Your task to perform on an android device: turn notification dots off Image 0: 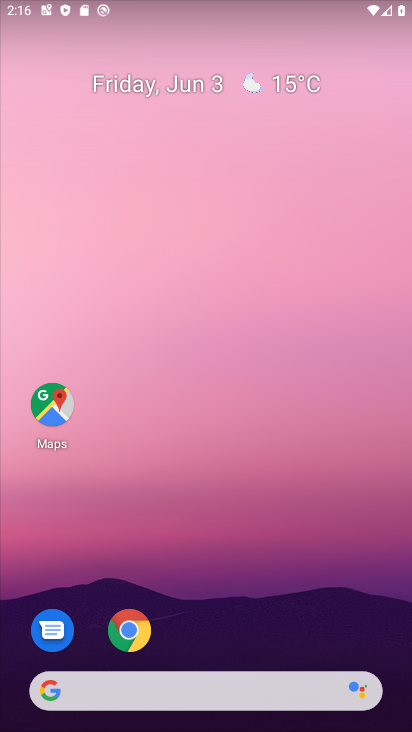
Step 0: drag from (252, 555) to (202, 31)
Your task to perform on an android device: turn notification dots off Image 1: 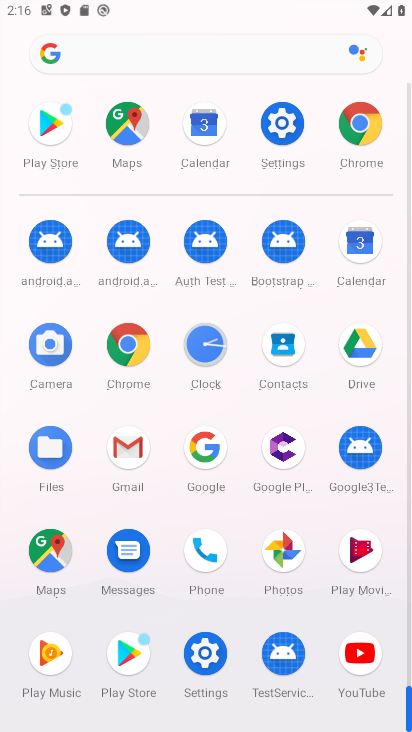
Step 1: drag from (17, 547) to (24, 206)
Your task to perform on an android device: turn notification dots off Image 2: 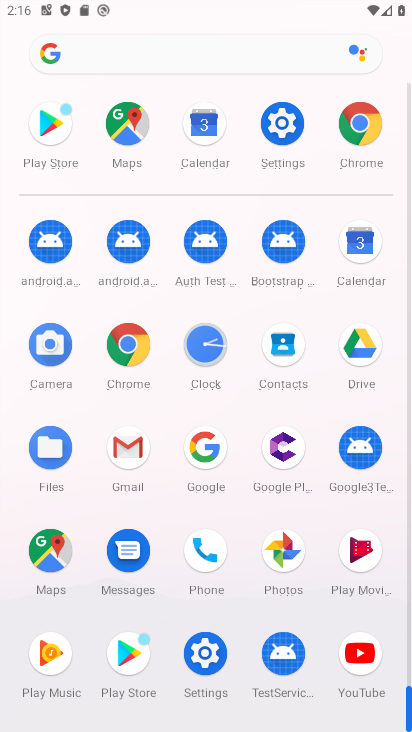
Step 2: click (206, 649)
Your task to perform on an android device: turn notification dots off Image 3: 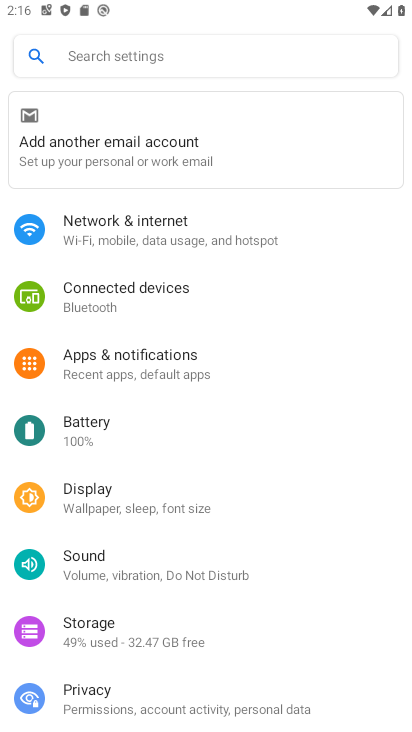
Step 3: click (161, 355)
Your task to perform on an android device: turn notification dots off Image 4: 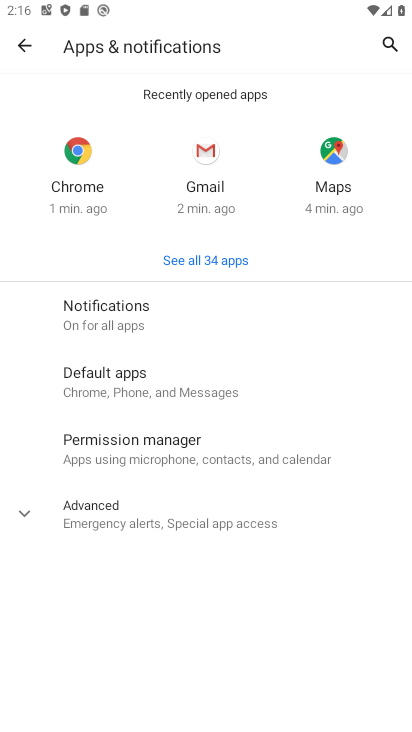
Step 4: click (27, 513)
Your task to perform on an android device: turn notification dots off Image 5: 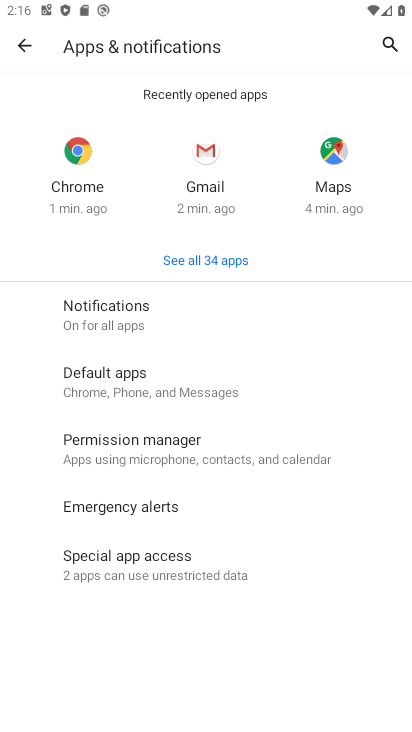
Step 5: click (153, 318)
Your task to perform on an android device: turn notification dots off Image 6: 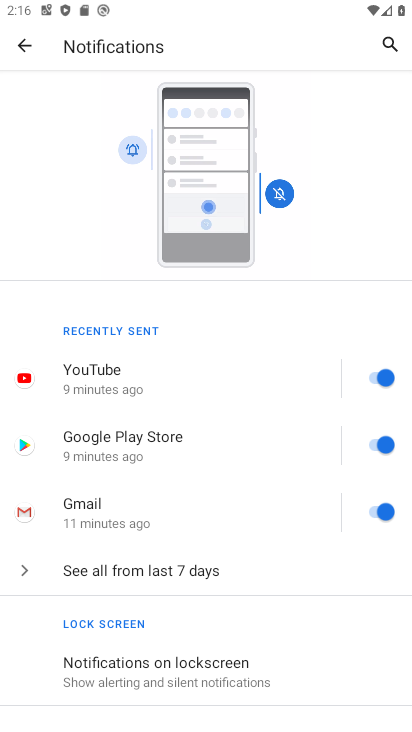
Step 6: drag from (233, 590) to (227, 221)
Your task to perform on an android device: turn notification dots off Image 7: 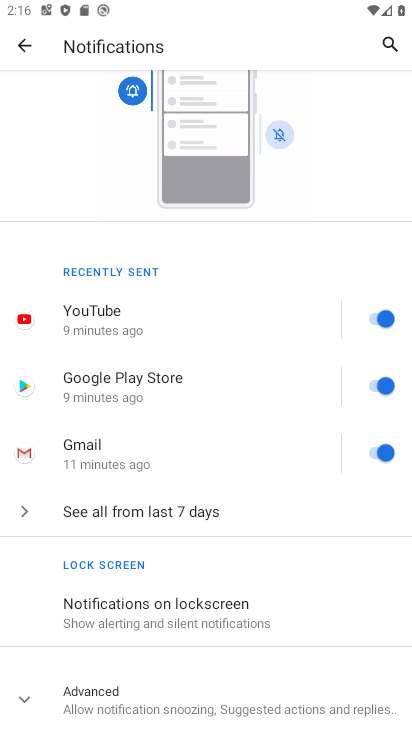
Step 7: drag from (209, 619) to (205, 435)
Your task to perform on an android device: turn notification dots off Image 8: 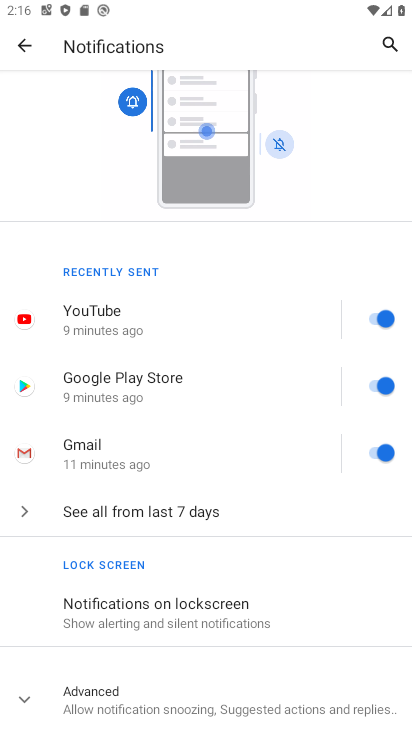
Step 8: click (58, 697)
Your task to perform on an android device: turn notification dots off Image 9: 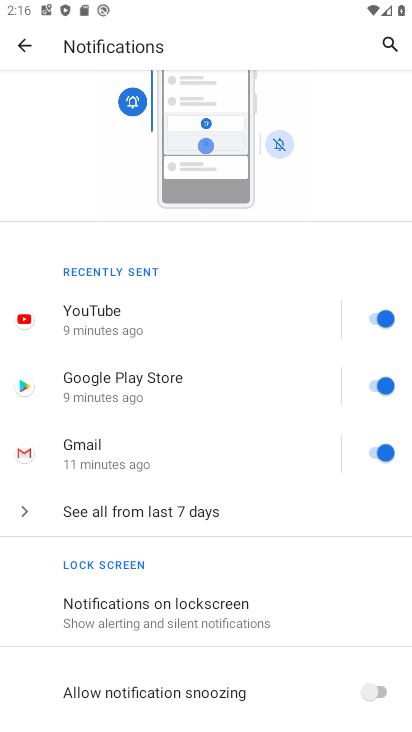
Step 9: drag from (226, 584) to (232, 242)
Your task to perform on an android device: turn notification dots off Image 10: 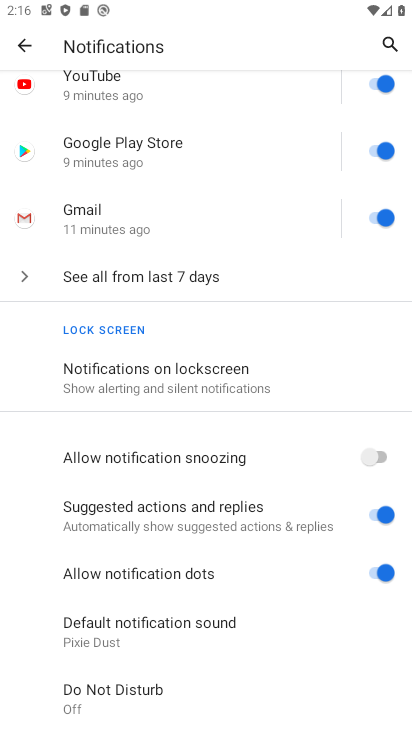
Step 10: drag from (242, 583) to (242, 224)
Your task to perform on an android device: turn notification dots off Image 11: 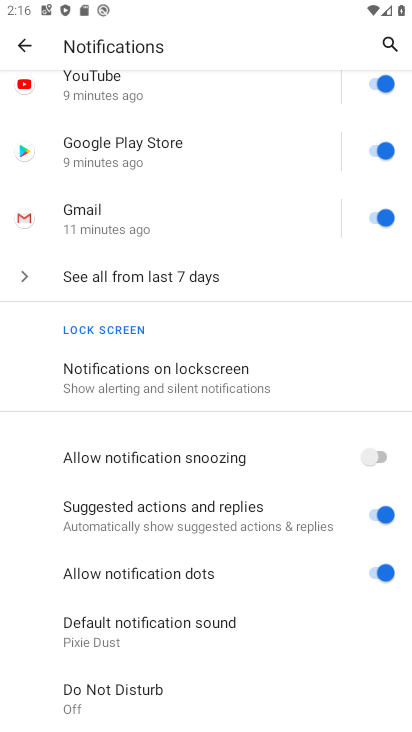
Step 11: click (369, 569)
Your task to perform on an android device: turn notification dots off Image 12: 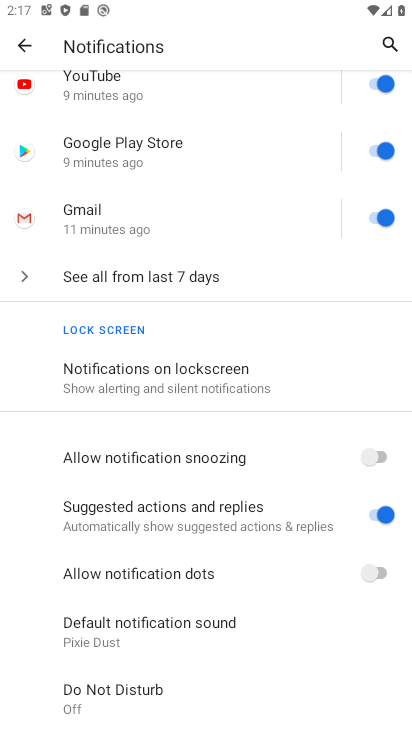
Step 12: task complete